Your task to perform on an android device: toggle pop-ups in chrome Image 0: 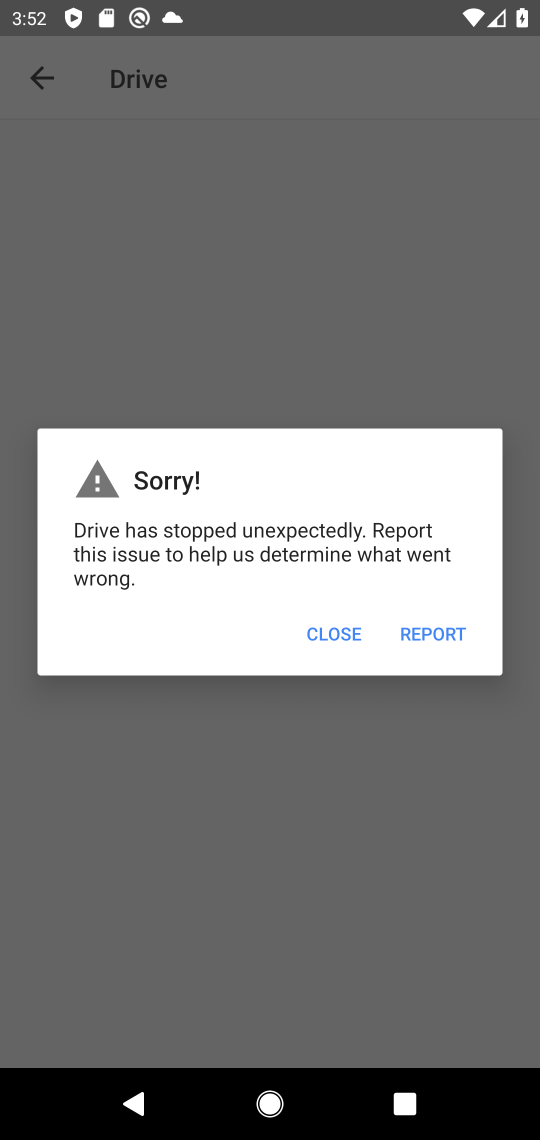
Step 0: press home button
Your task to perform on an android device: toggle pop-ups in chrome Image 1: 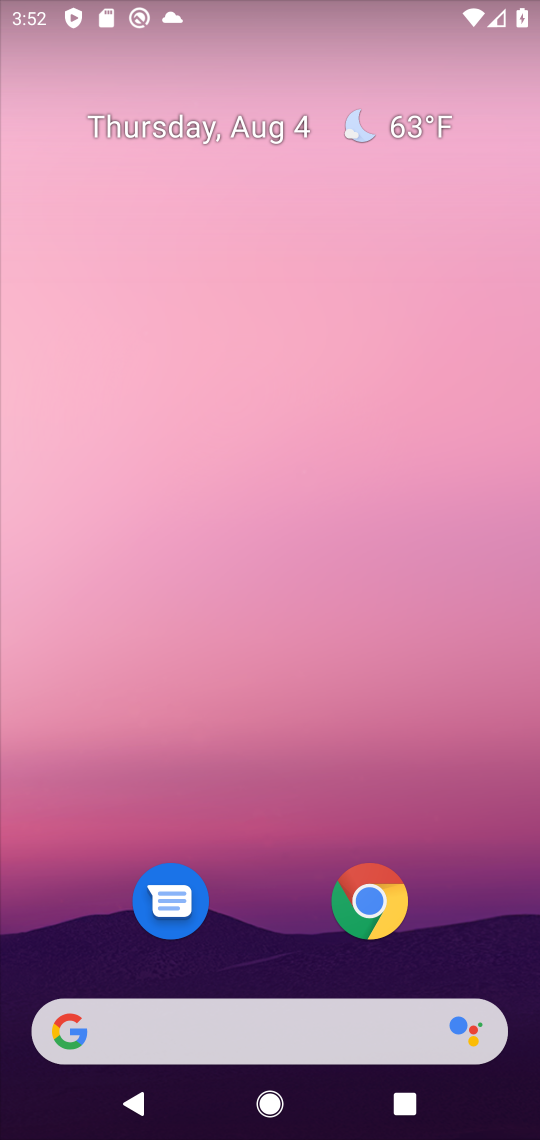
Step 1: drag from (277, 932) to (187, 182)
Your task to perform on an android device: toggle pop-ups in chrome Image 2: 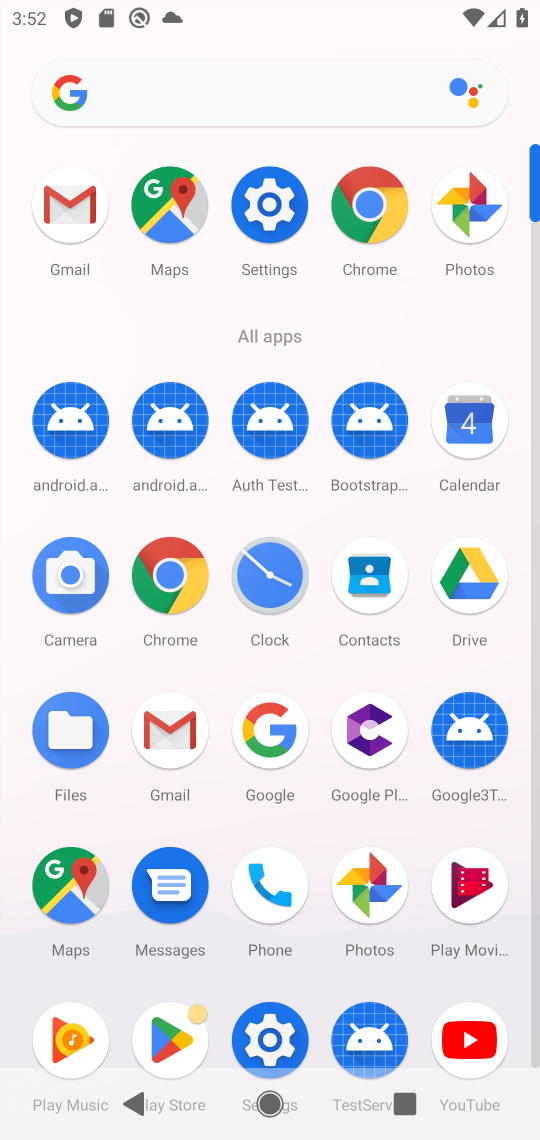
Step 2: click (376, 205)
Your task to perform on an android device: toggle pop-ups in chrome Image 3: 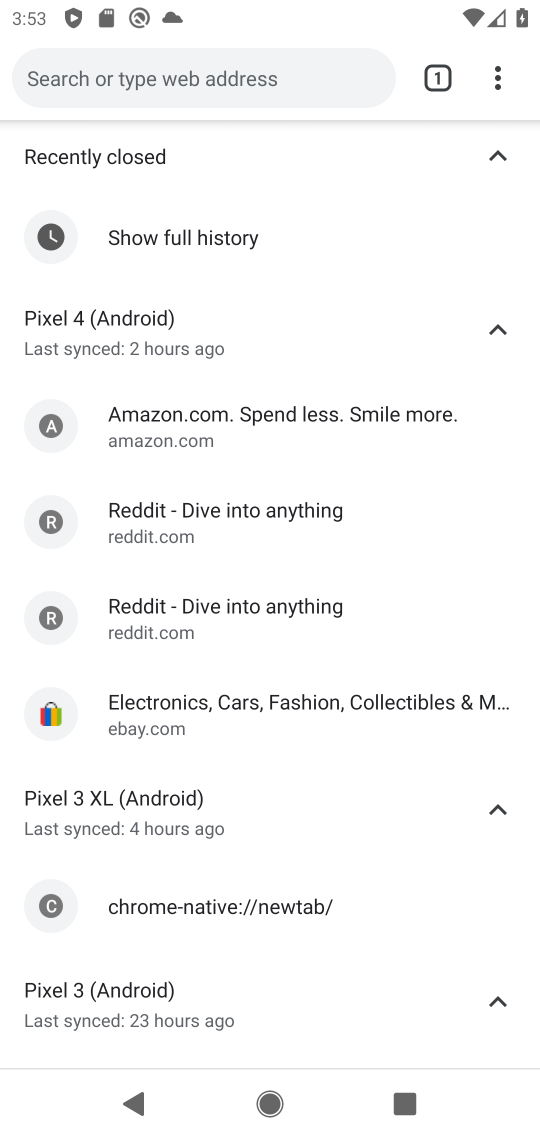
Step 3: click (502, 78)
Your task to perform on an android device: toggle pop-ups in chrome Image 4: 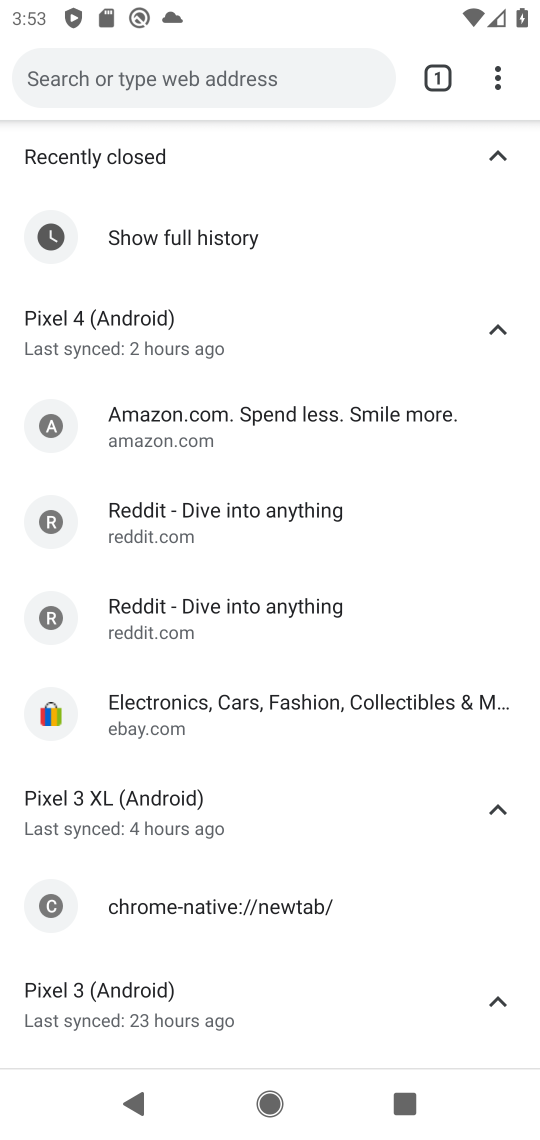
Step 4: drag from (502, 84) to (185, 739)
Your task to perform on an android device: toggle pop-ups in chrome Image 5: 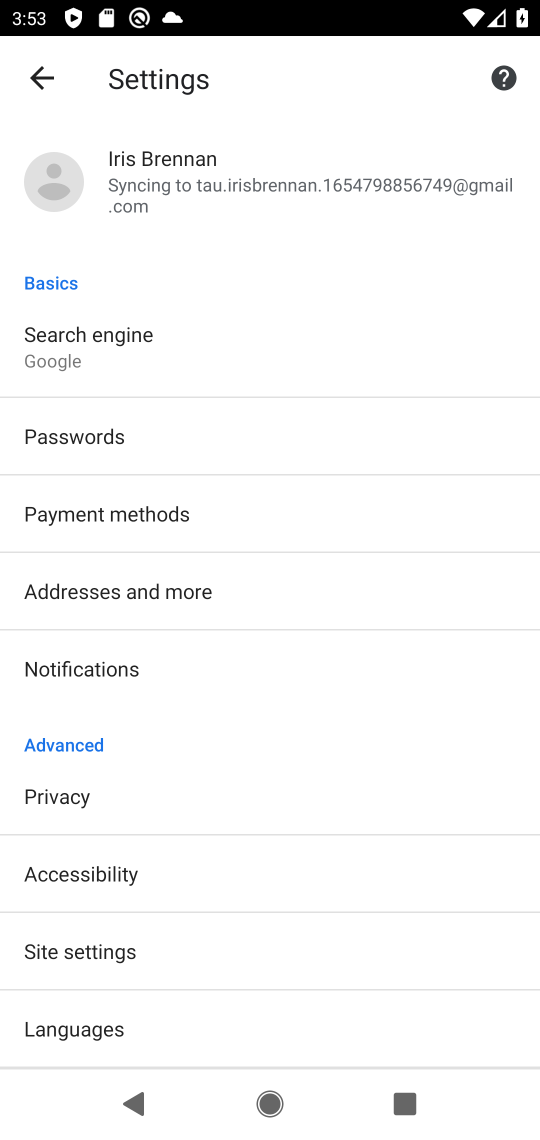
Step 5: click (117, 948)
Your task to perform on an android device: toggle pop-ups in chrome Image 6: 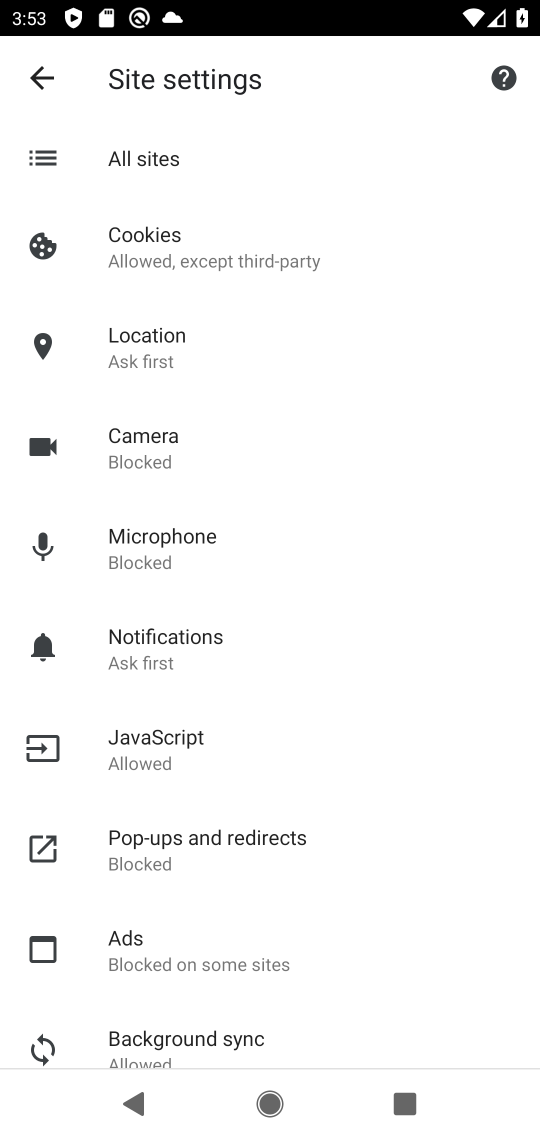
Step 6: drag from (289, 937) to (300, 761)
Your task to perform on an android device: toggle pop-ups in chrome Image 7: 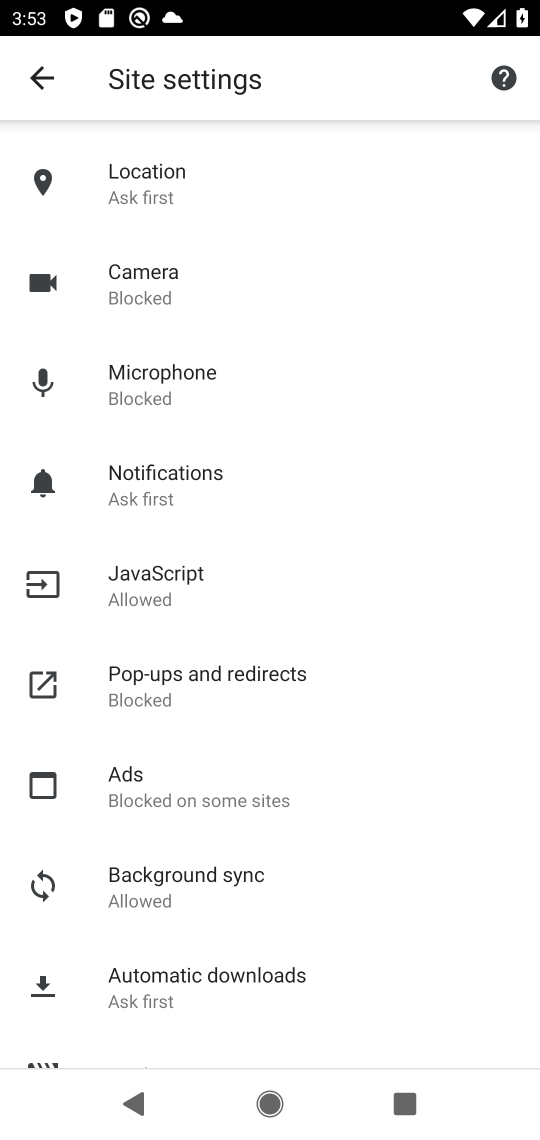
Step 7: click (169, 673)
Your task to perform on an android device: toggle pop-ups in chrome Image 8: 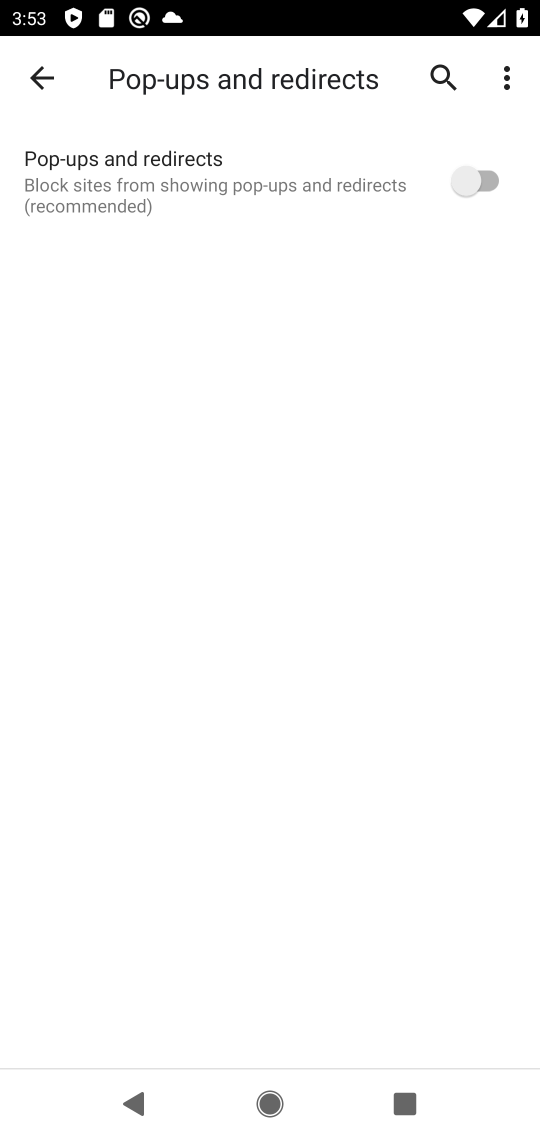
Step 8: click (326, 170)
Your task to perform on an android device: toggle pop-ups in chrome Image 9: 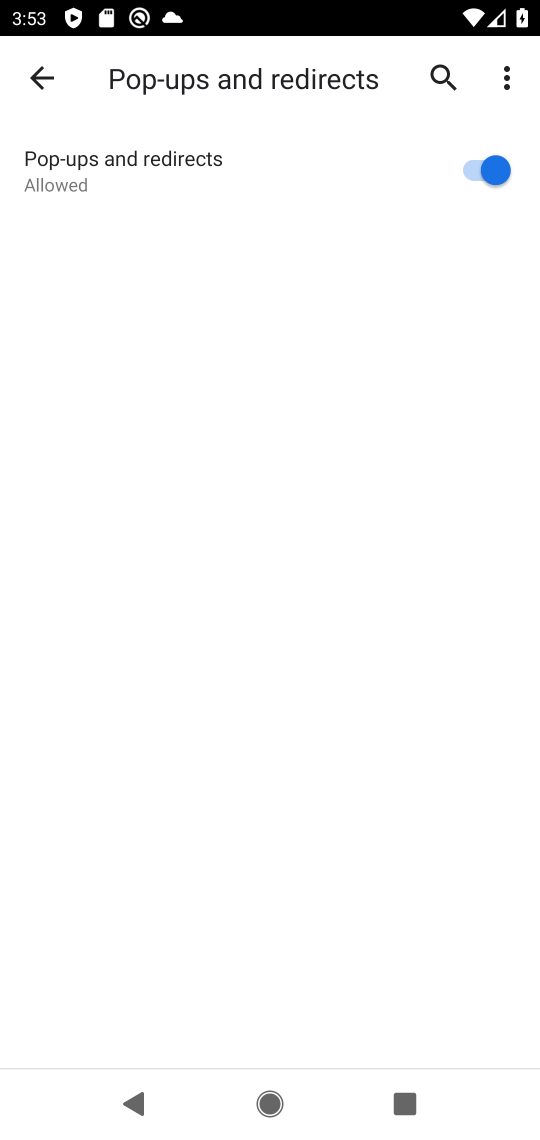
Step 9: task complete